Your task to perform on an android device: turn off location history Image 0: 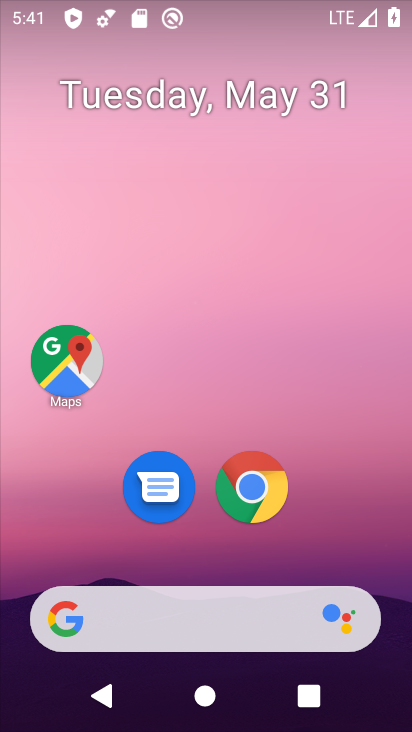
Step 0: drag from (328, 548) to (260, 59)
Your task to perform on an android device: turn off location history Image 1: 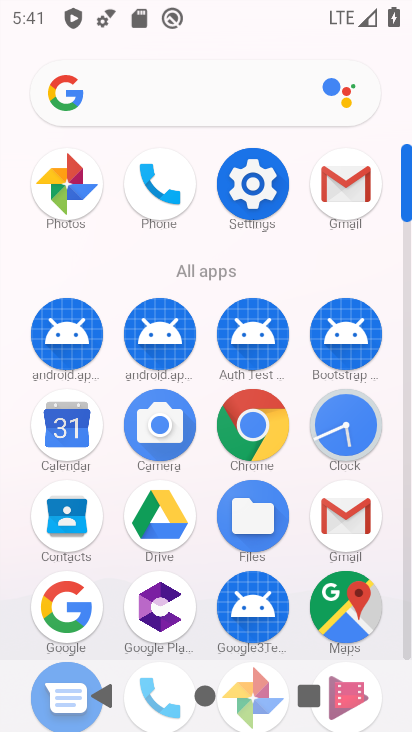
Step 1: click (347, 609)
Your task to perform on an android device: turn off location history Image 2: 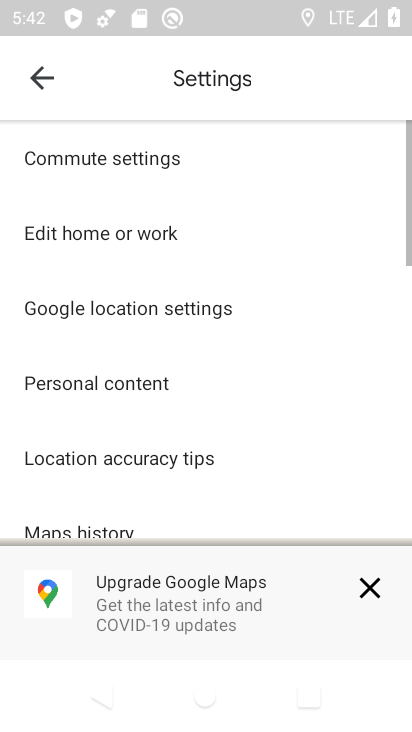
Step 2: click (49, 70)
Your task to perform on an android device: turn off location history Image 3: 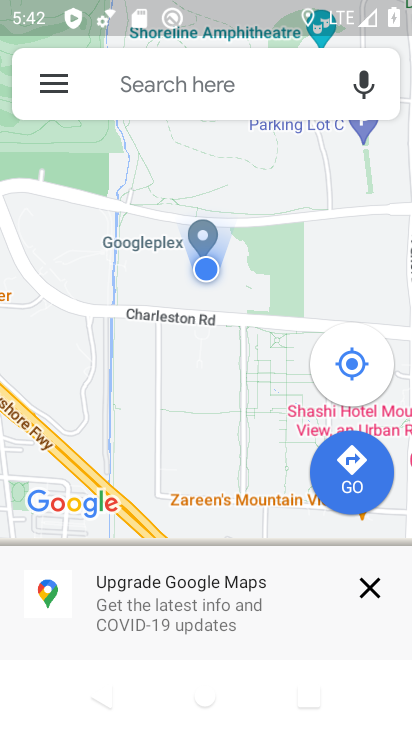
Step 3: click (42, 80)
Your task to perform on an android device: turn off location history Image 4: 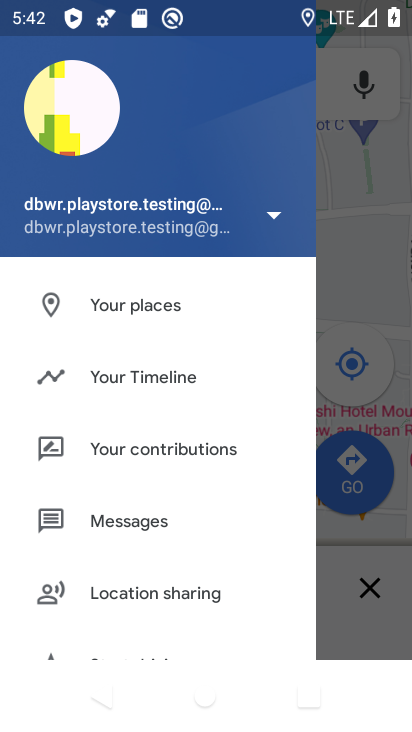
Step 4: click (137, 379)
Your task to perform on an android device: turn off location history Image 5: 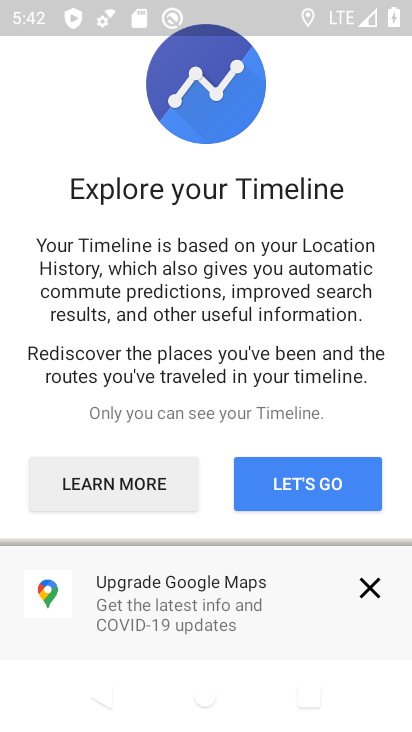
Step 5: click (284, 481)
Your task to perform on an android device: turn off location history Image 6: 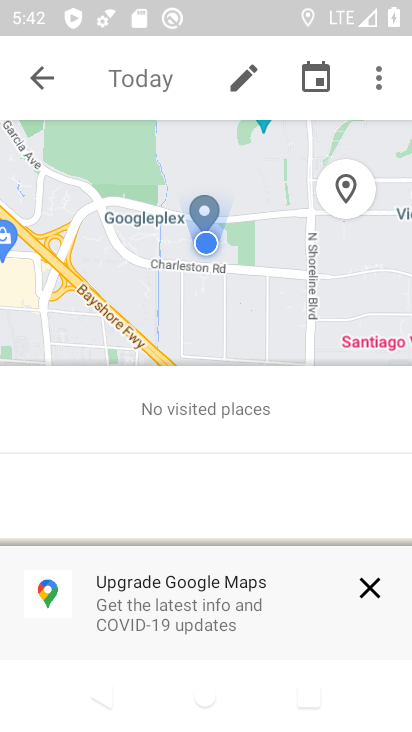
Step 6: click (378, 77)
Your task to perform on an android device: turn off location history Image 7: 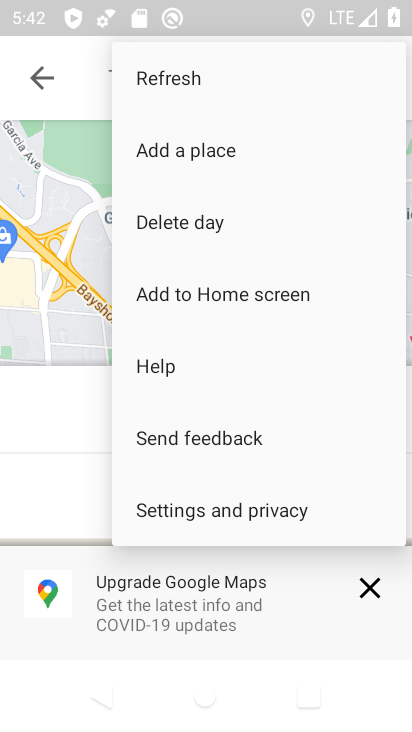
Step 7: click (249, 512)
Your task to perform on an android device: turn off location history Image 8: 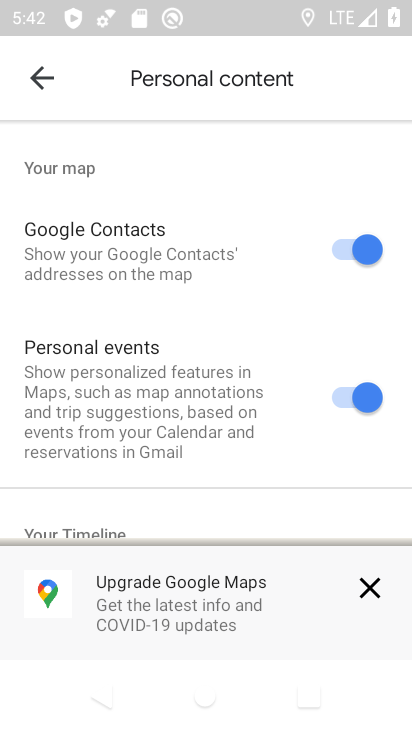
Step 8: click (371, 592)
Your task to perform on an android device: turn off location history Image 9: 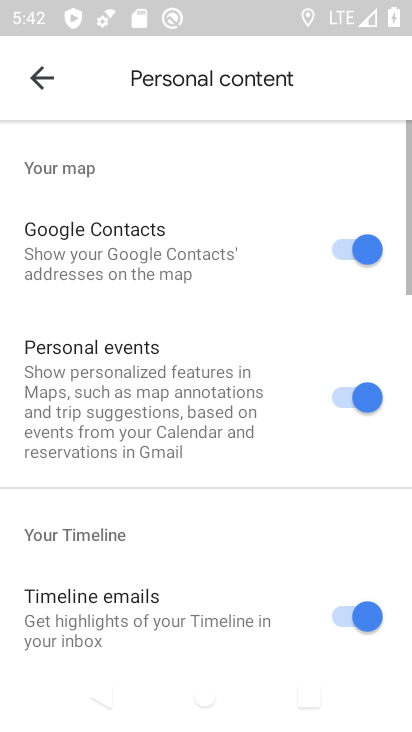
Step 9: drag from (273, 542) to (234, 164)
Your task to perform on an android device: turn off location history Image 10: 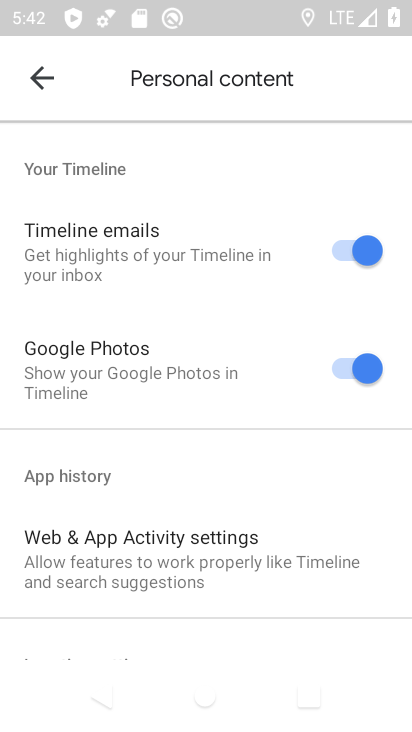
Step 10: drag from (235, 509) to (224, 161)
Your task to perform on an android device: turn off location history Image 11: 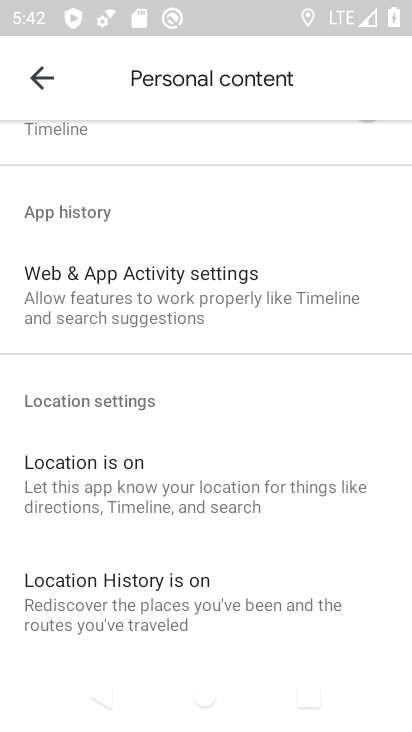
Step 11: drag from (222, 506) to (209, 308)
Your task to perform on an android device: turn off location history Image 12: 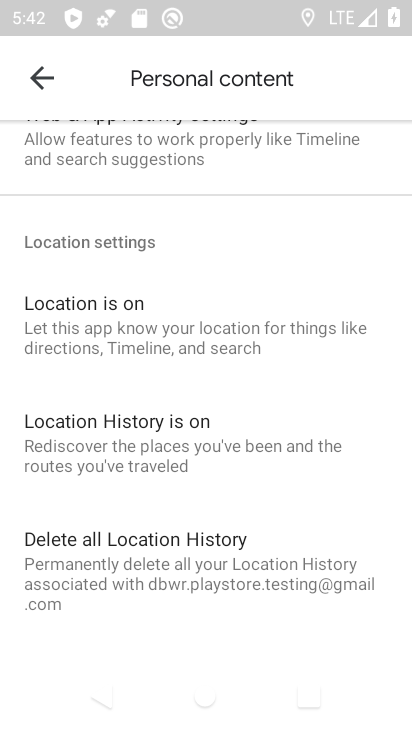
Step 12: click (138, 415)
Your task to perform on an android device: turn off location history Image 13: 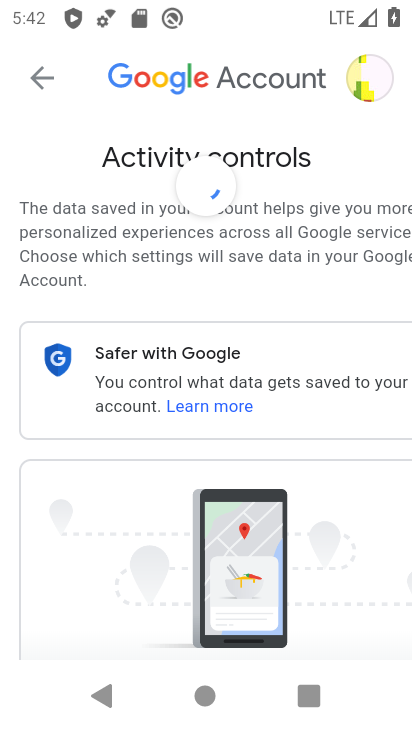
Step 13: drag from (336, 553) to (317, 275)
Your task to perform on an android device: turn off location history Image 14: 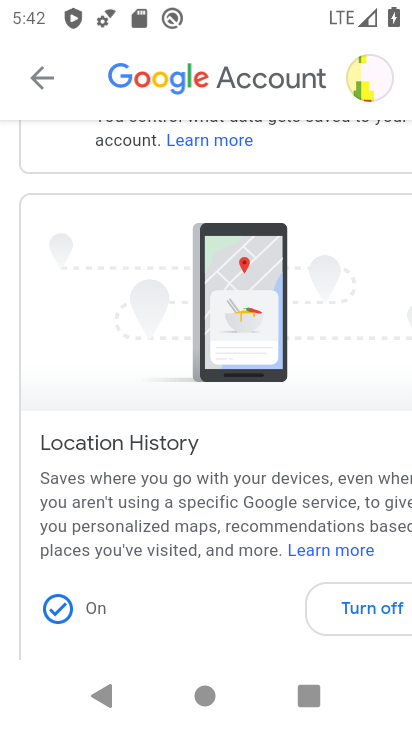
Step 14: click (353, 606)
Your task to perform on an android device: turn off location history Image 15: 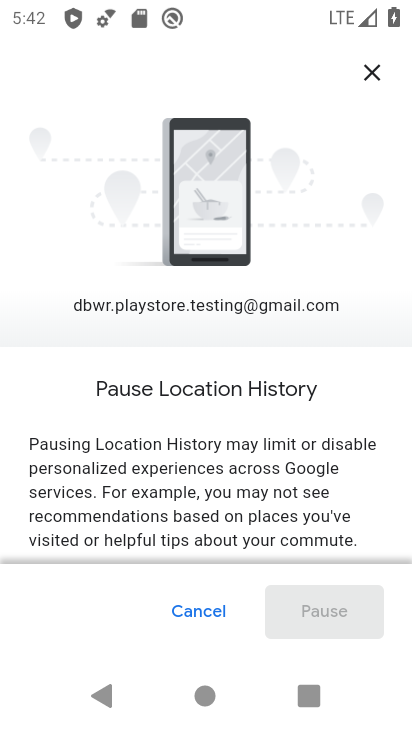
Step 15: drag from (266, 512) to (242, 102)
Your task to perform on an android device: turn off location history Image 16: 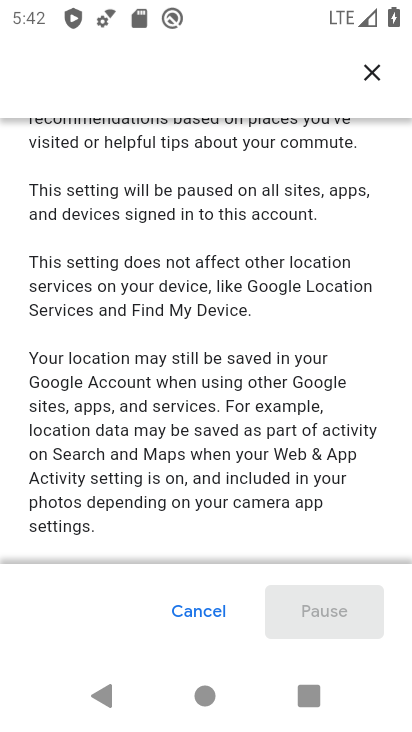
Step 16: drag from (300, 416) to (276, 163)
Your task to perform on an android device: turn off location history Image 17: 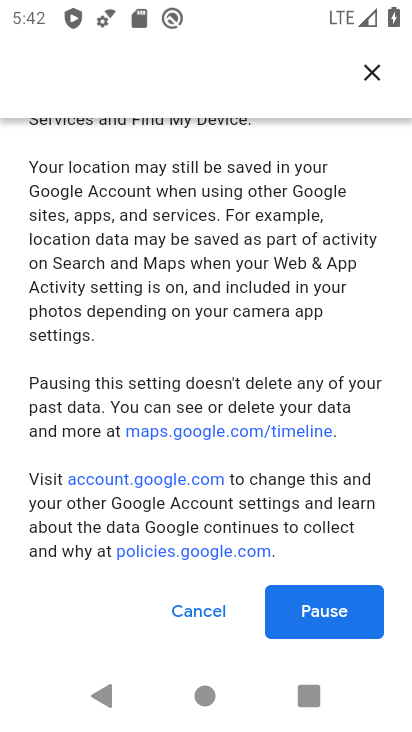
Step 17: click (321, 606)
Your task to perform on an android device: turn off location history Image 18: 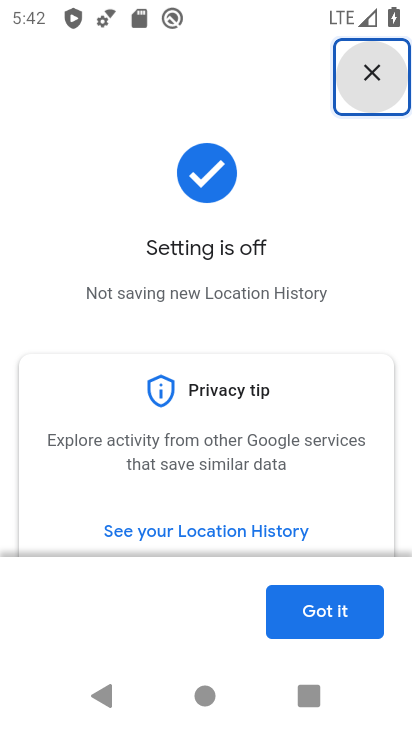
Step 18: click (310, 605)
Your task to perform on an android device: turn off location history Image 19: 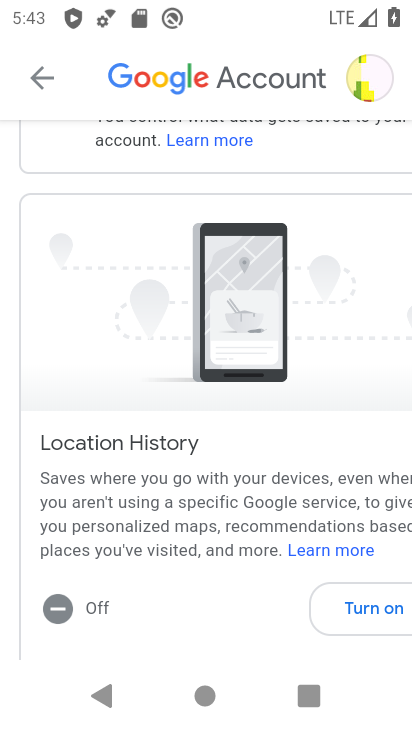
Step 19: task complete